Your task to perform on an android device: turn off wifi Image 0: 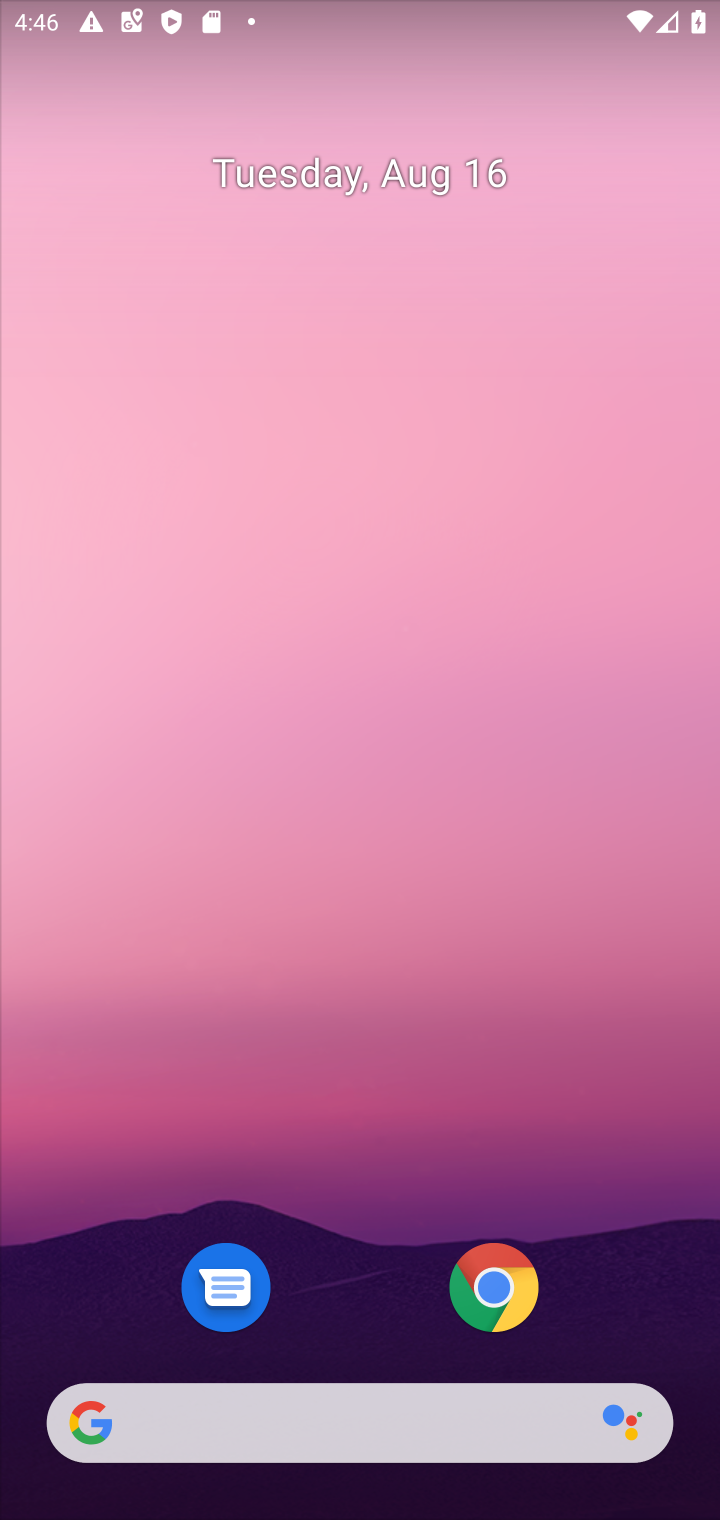
Step 0: drag from (194, 9) to (187, 112)
Your task to perform on an android device: turn off wifi Image 1: 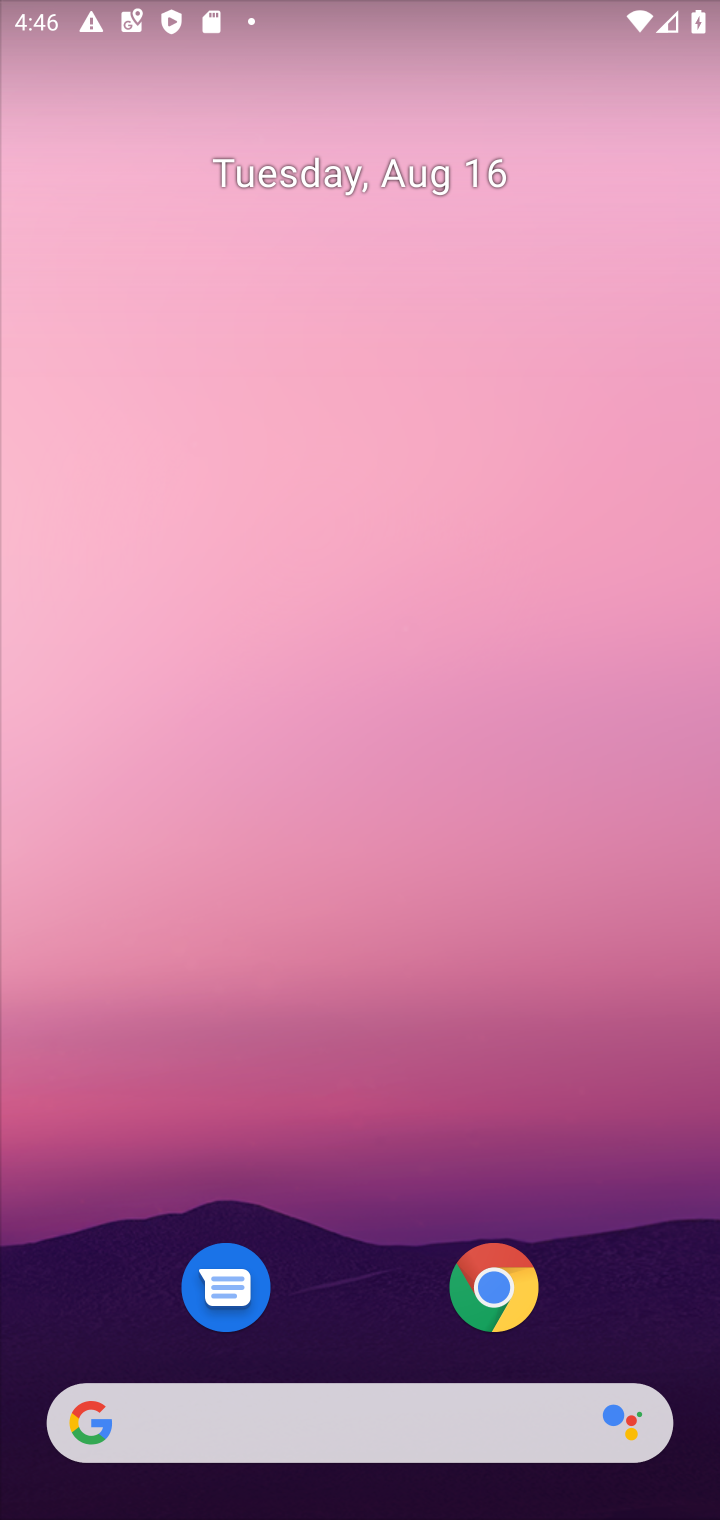
Step 1: drag from (411, 159) to (538, 814)
Your task to perform on an android device: turn off wifi Image 2: 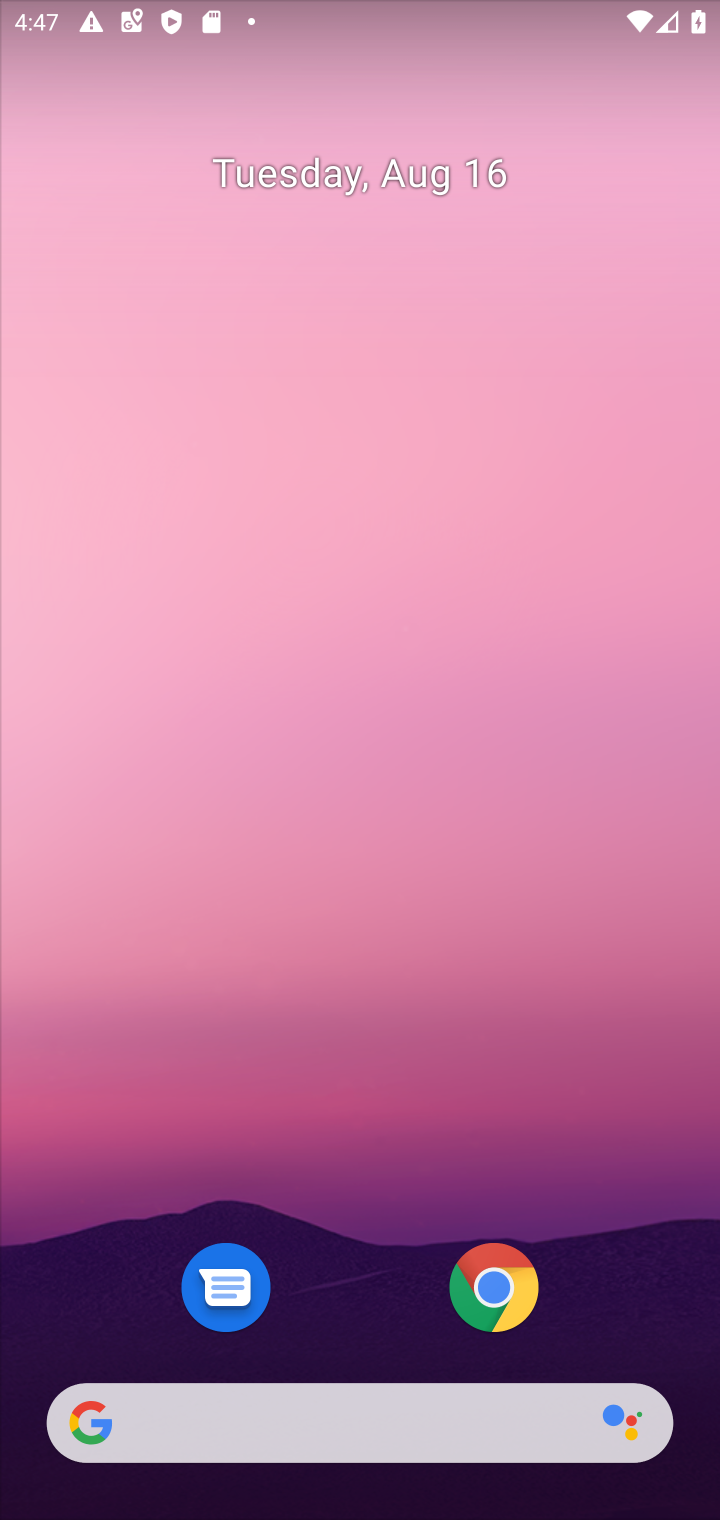
Step 2: drag from (366, 124) to (432, 758)
Your task to perform on an android device: turn off wifi Image 3: 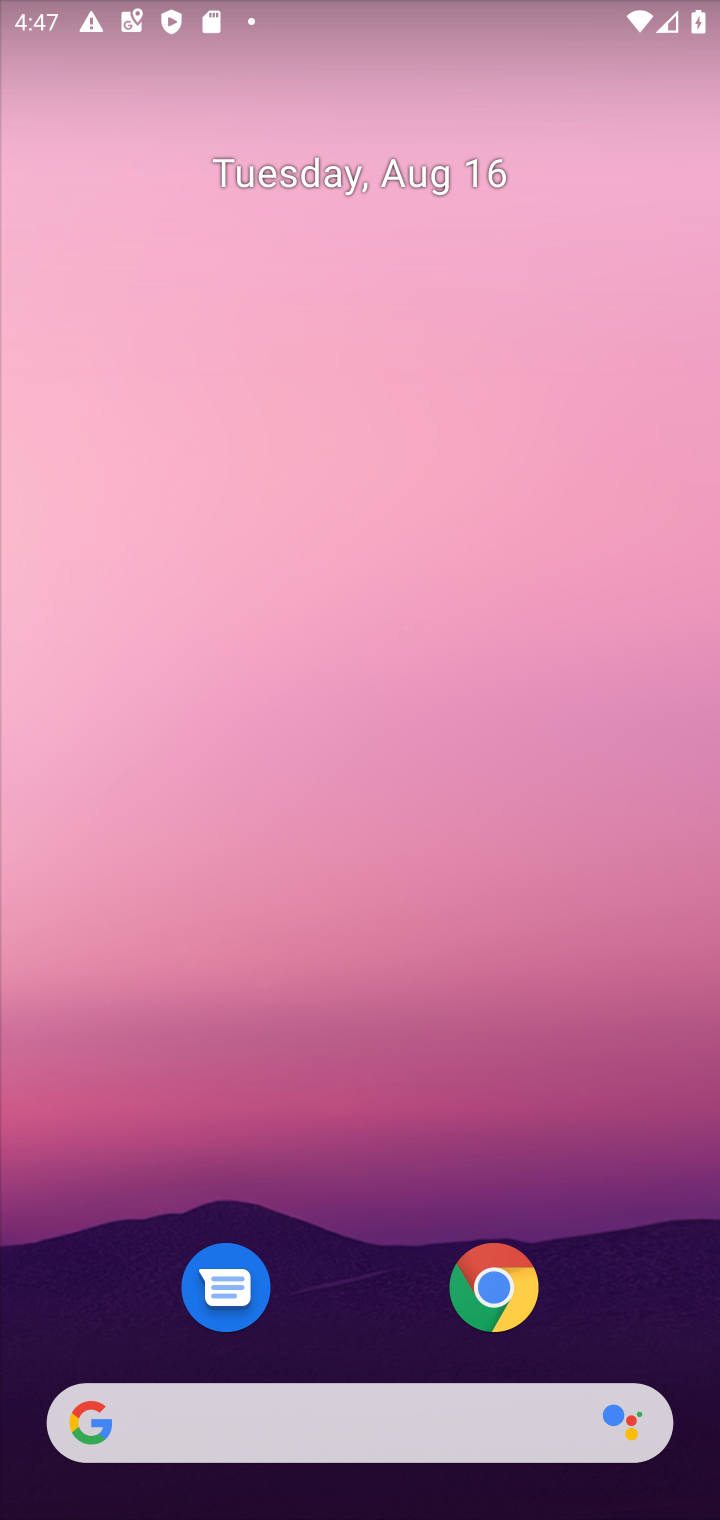
Step 3: drag from (302, 11) to (442, 957)
Your task to perform on an android device: turn off wifi Image 4: 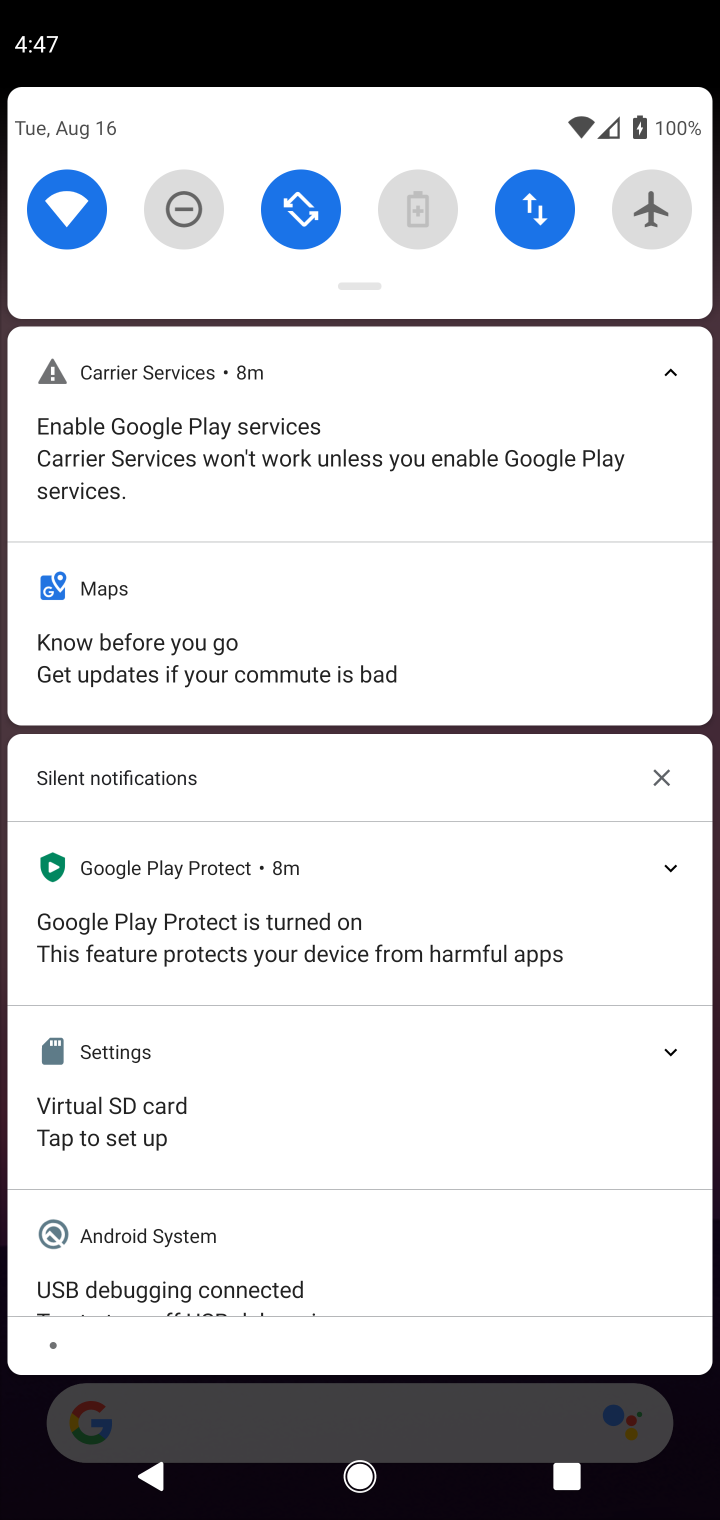
Step 4: click (79, 214)
Your task to perform on an android device: turn off wifi Image 5: 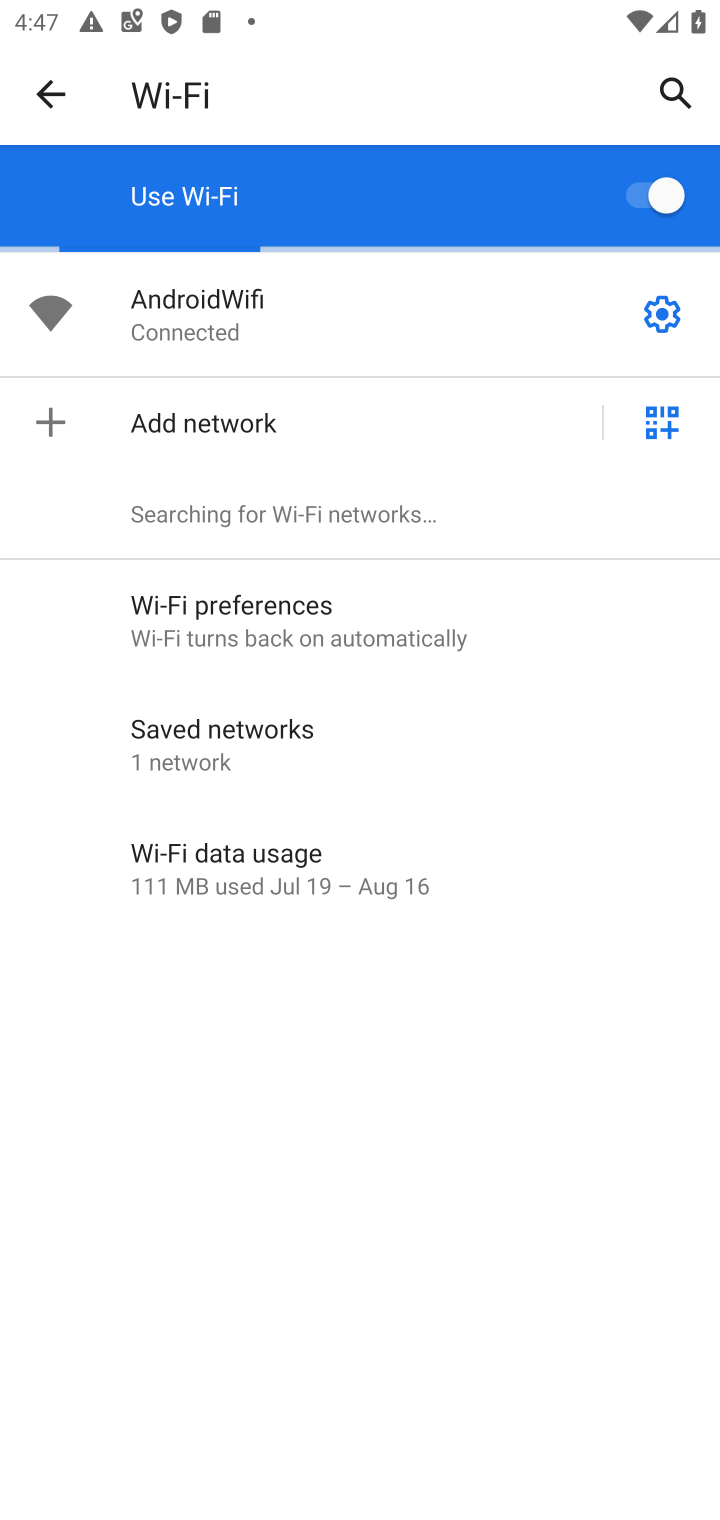
Step 5: click (593, 178)
Your task to perform on an android device: turn off wifi Image 6: 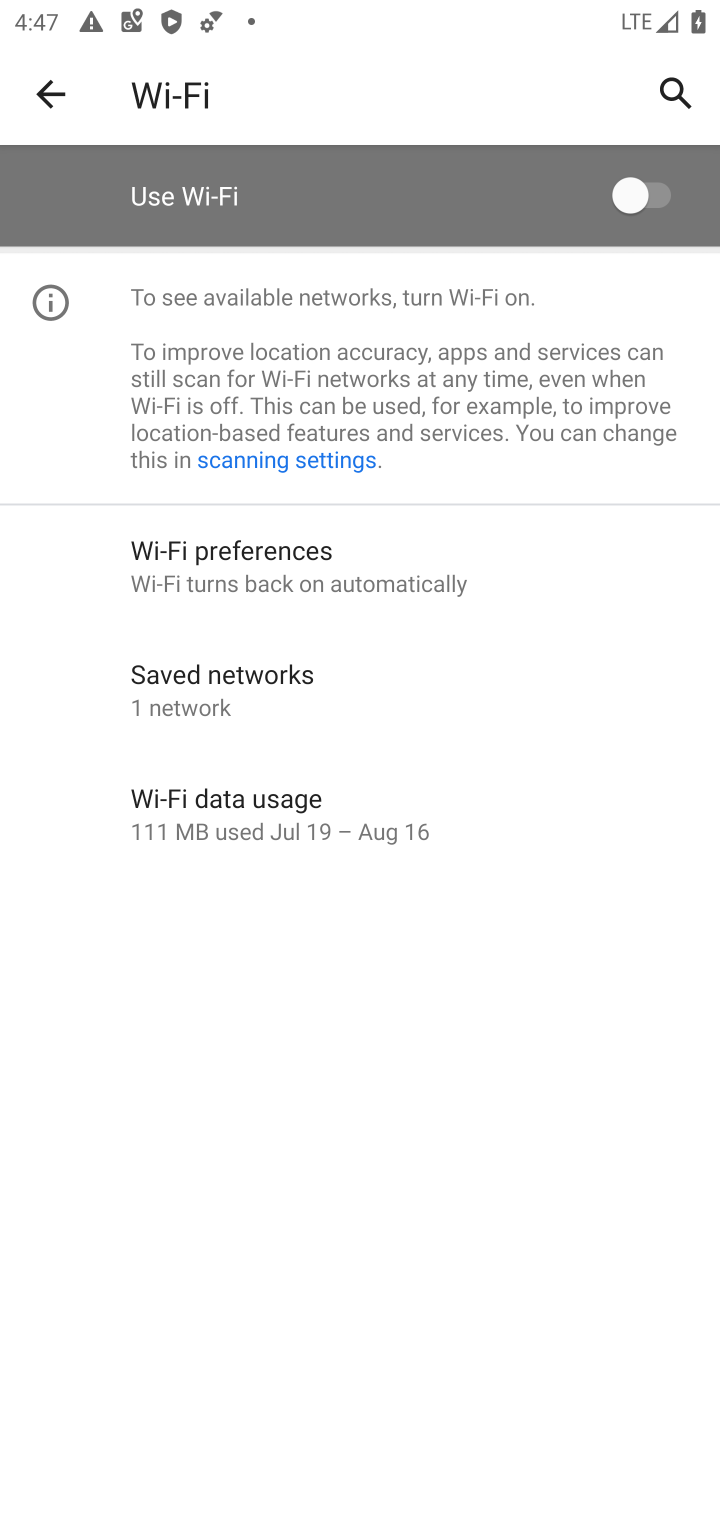
Step 6: task complete